Your task to perform on an android device: Open Google Image 0: 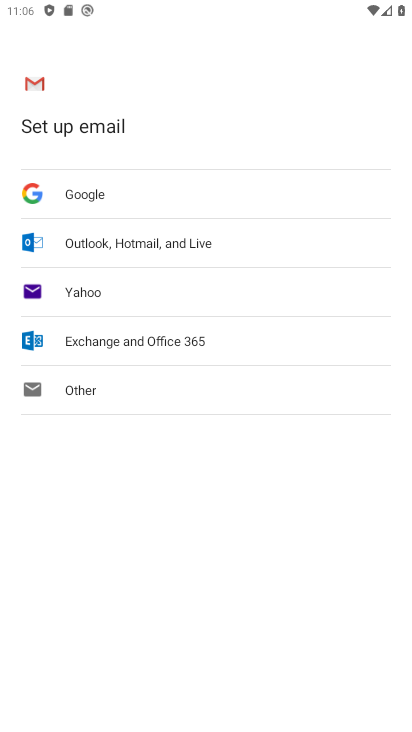
Step 0: press home button
Your task to perform on an android device: Open Google Image 1: 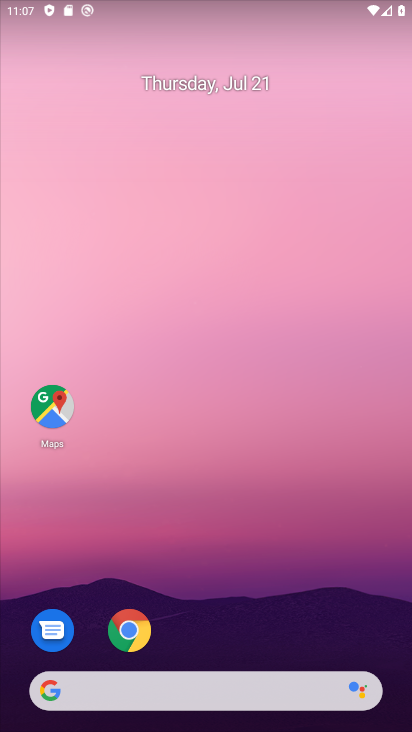
Step 1: click (206, 707)
Your task to perform on an android device: Open Google Image 2: 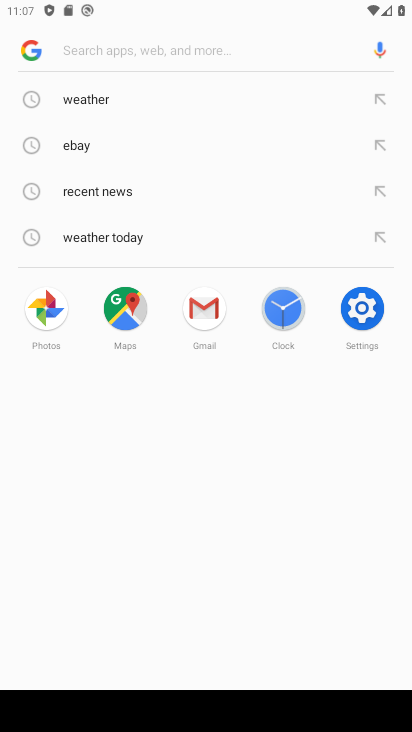
Step 2: task complete